Your task to perform on an android device: Open calendar and show me the fourth week of next month Image 0: 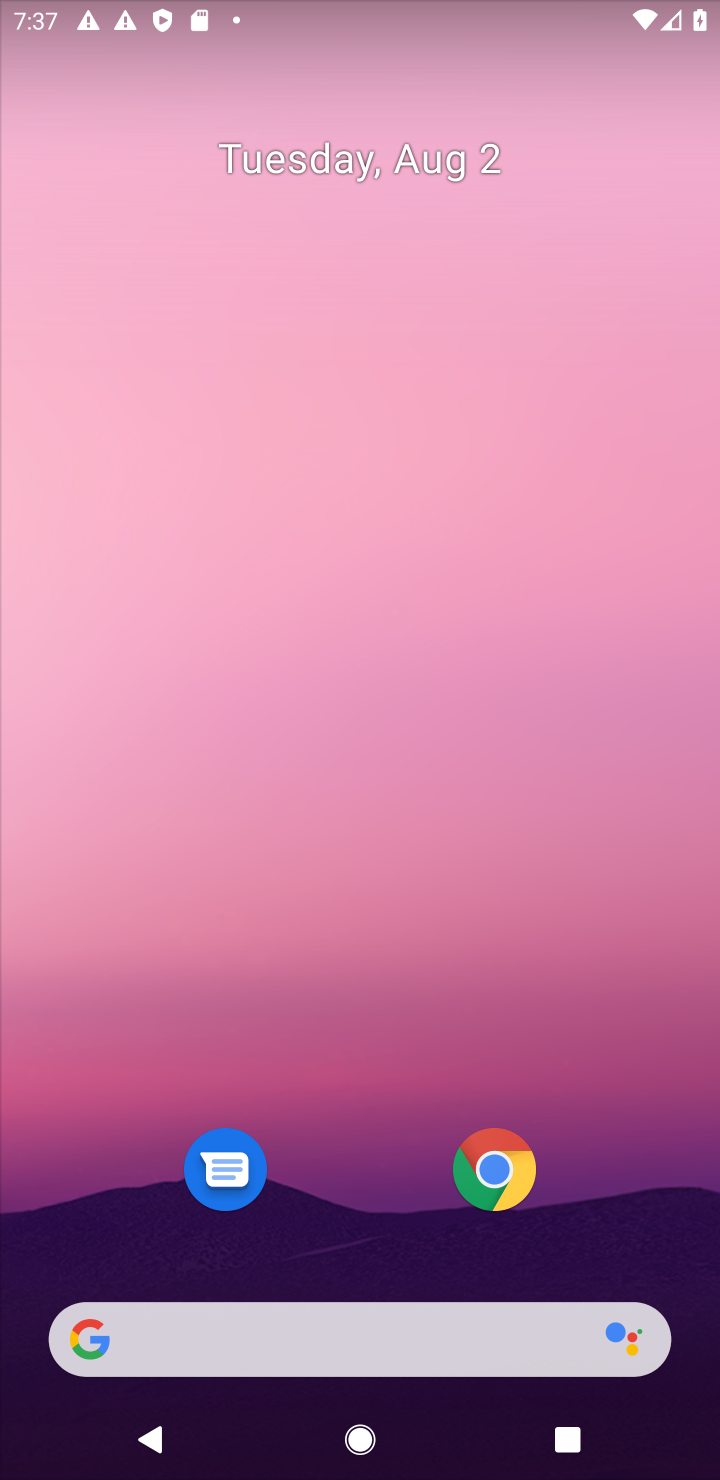
Step 0: drag from (441, 1008) to (472, 46)
Your task to perform on an android device: Open calendar and show me the fourth week of next month Image 1: 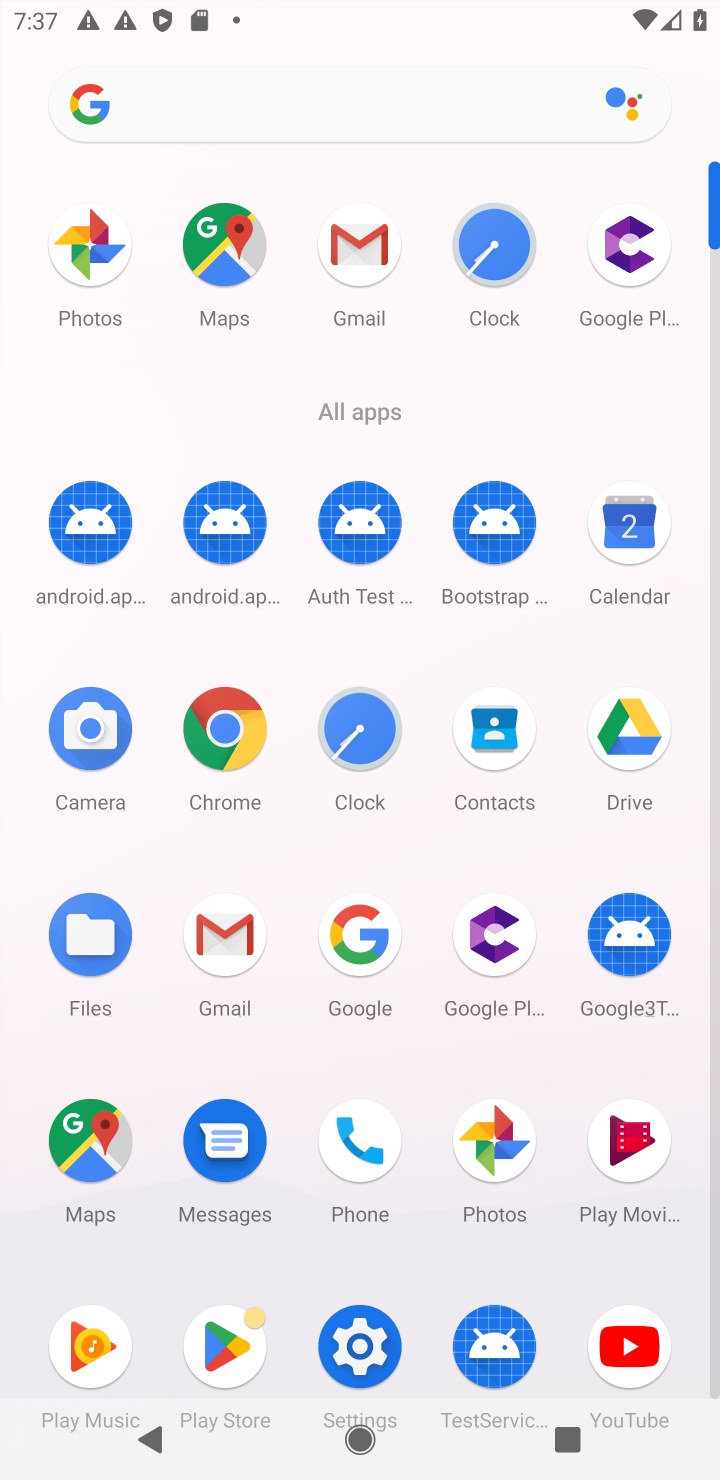
Step 1: click (642, 537)
Your task to perform on an android device: Open calendar and show me the fourth week of next month Image 2: 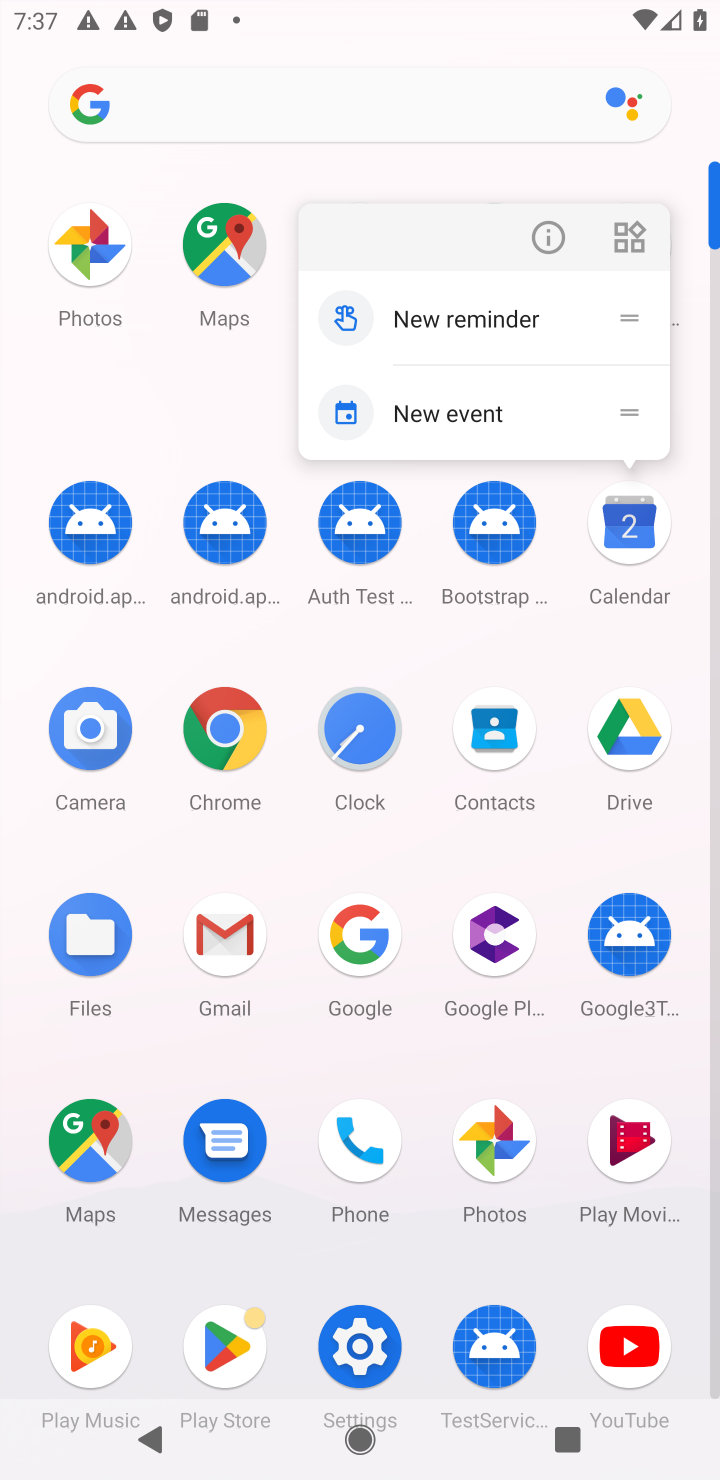
Step 2: click (639, 537)
Your task to perform on an android device: Open calendar and show me the fourth week of next month Image 3: 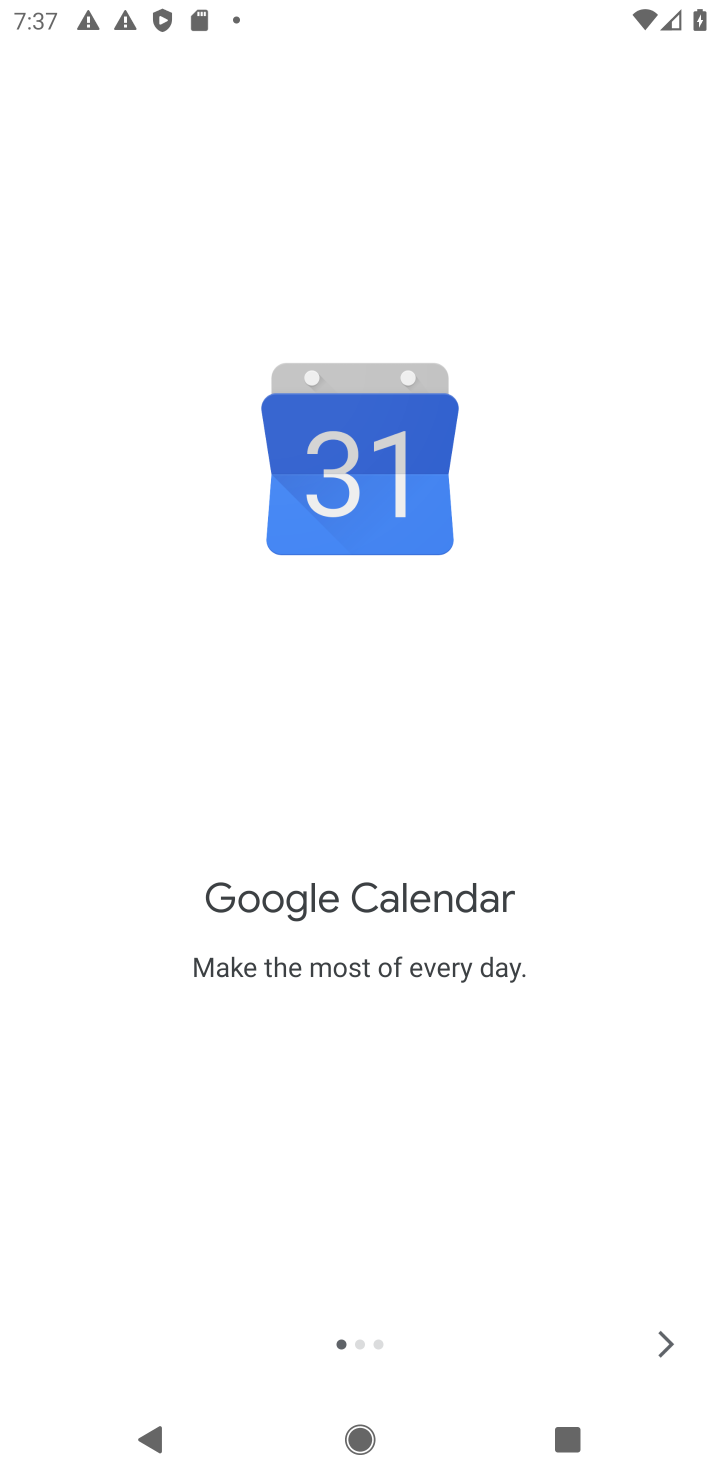
Step 3: click (664, 1334)
Your task to perform on an android device: Open calendar and show me the fourth week of next month Image 4: 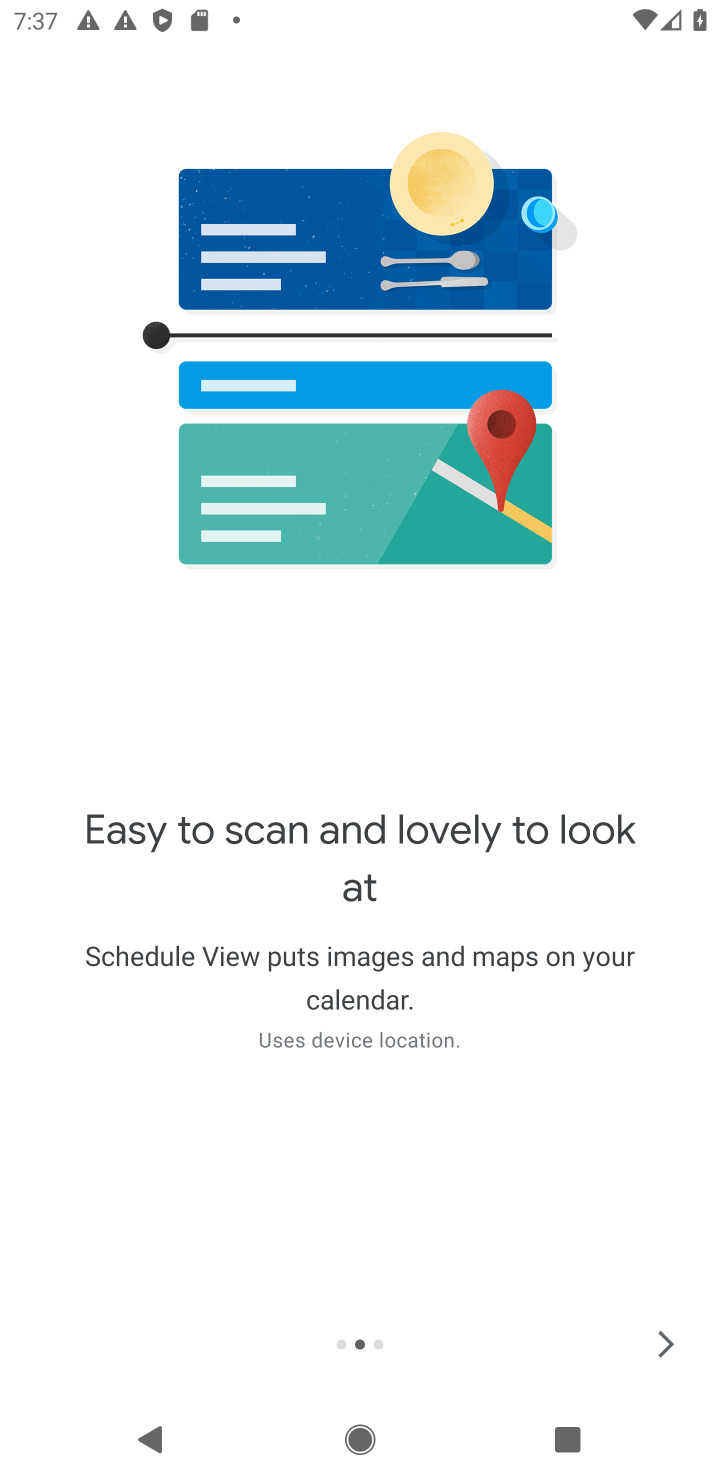
Step 4: click (664, 1334)
Your task to perform on an android device: Open calendar and show me the fourth week of next month Image 5: 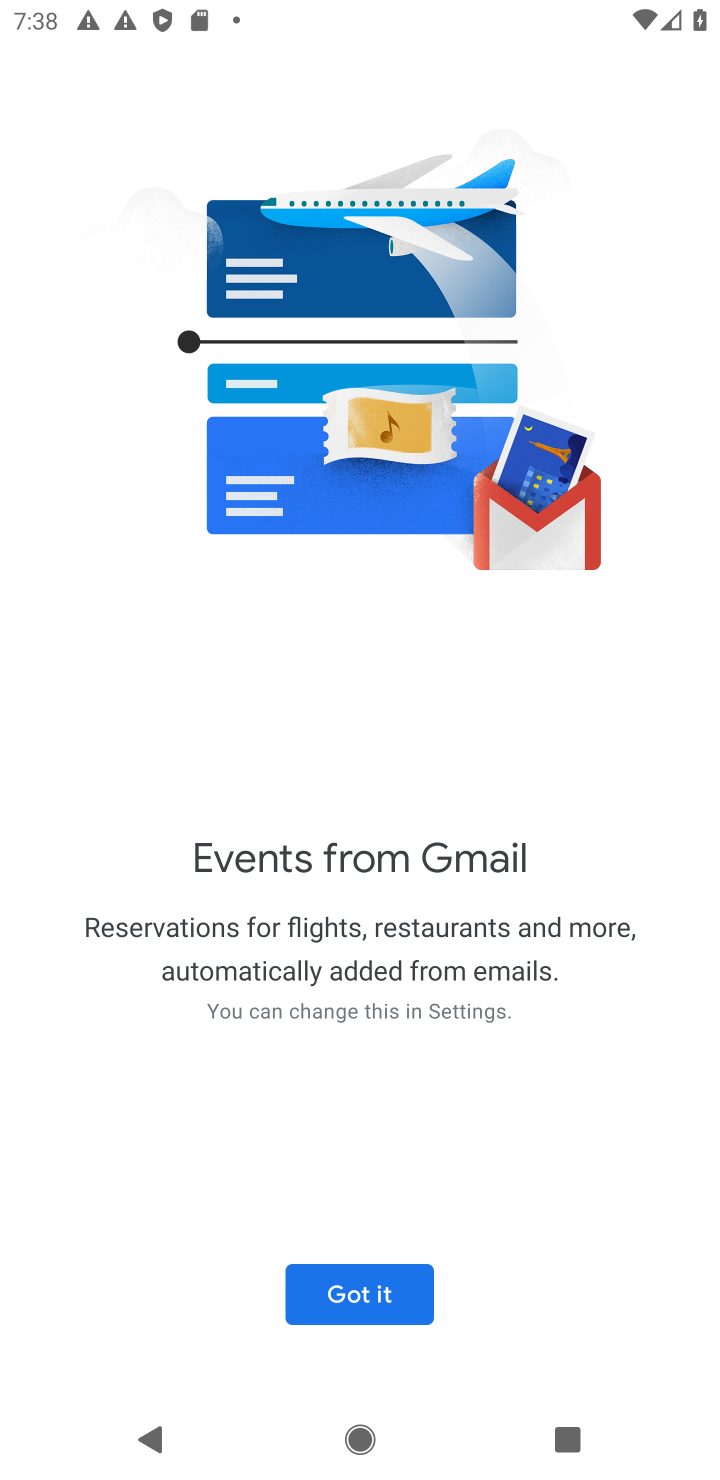
Step 5: click (415, 1312)
Your task to perform on an android device: Open calendar and show me the fourth week of next month Image 6: 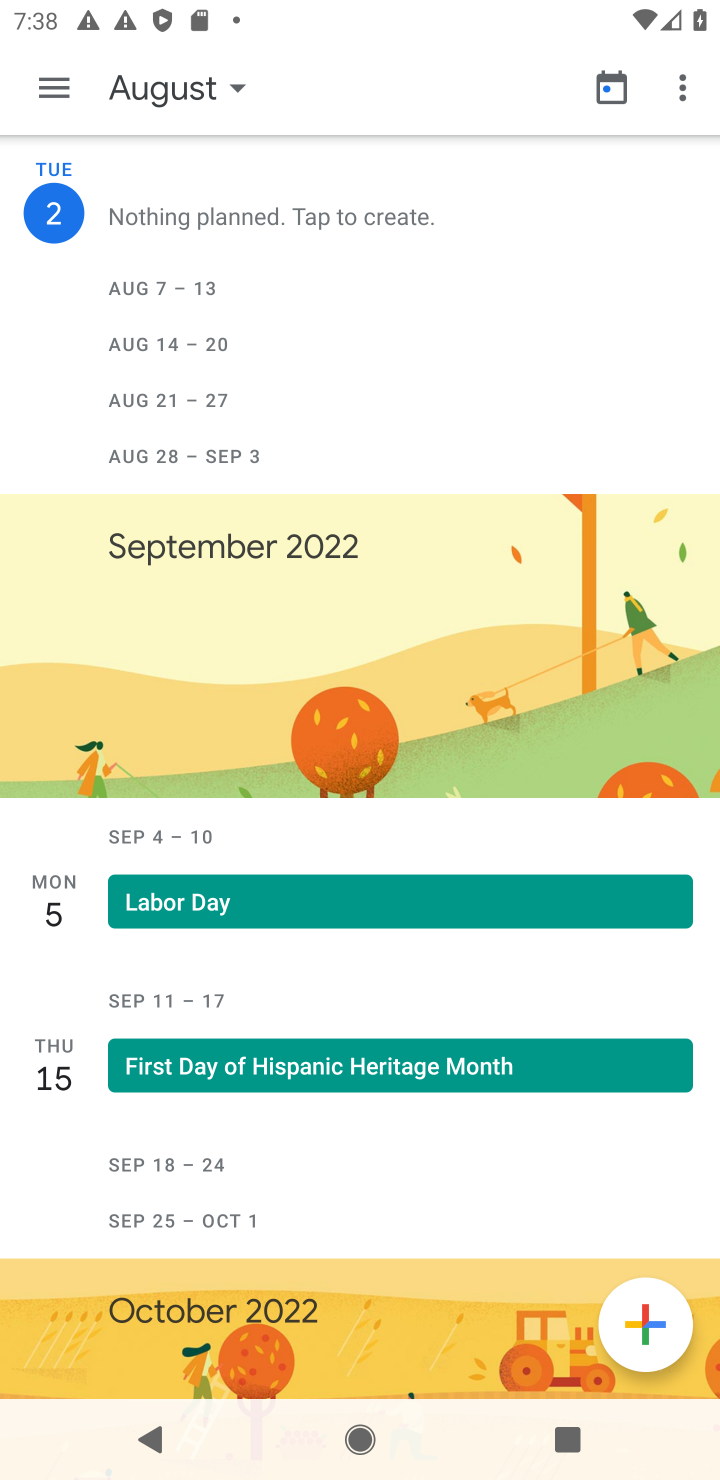
Step 6: click (63, 87)
Your task to perform on an android device: Open calendar and show me the fourth week of next month Image 7: 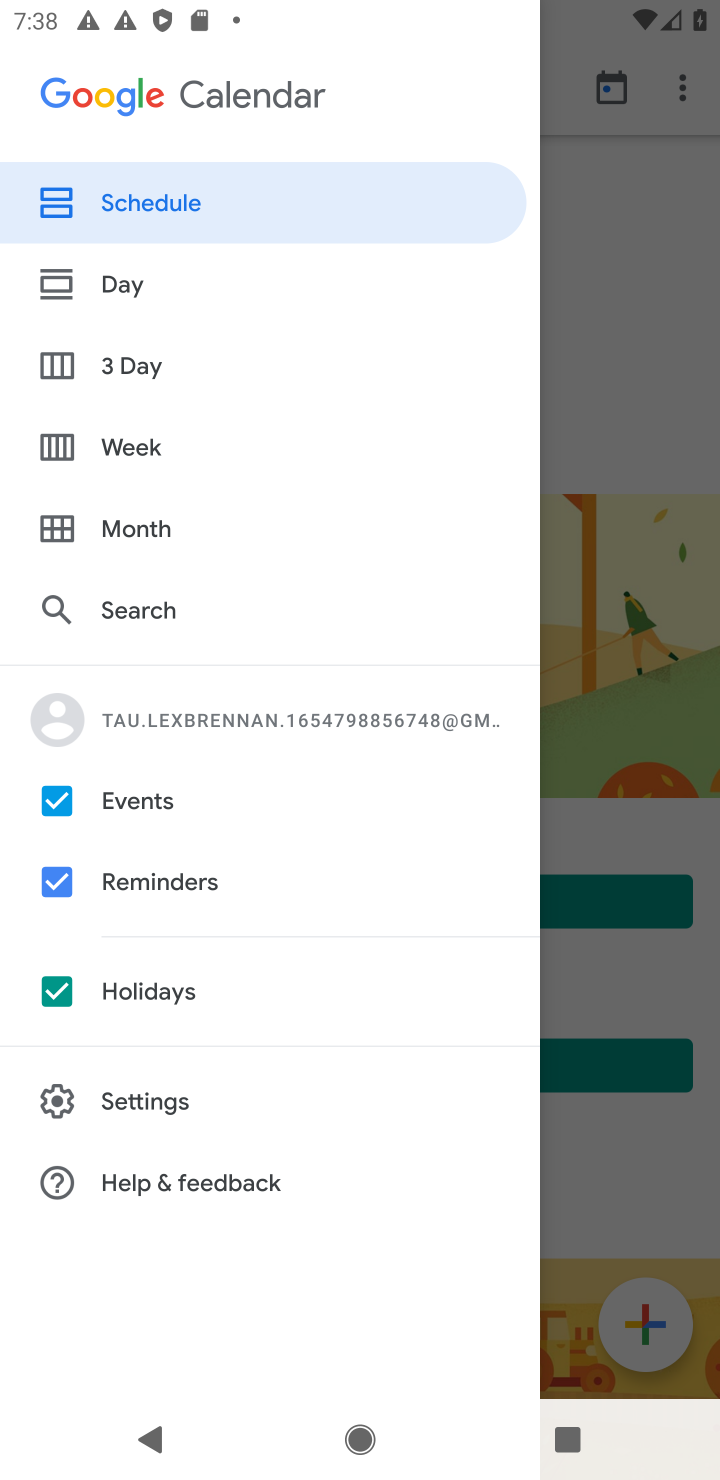
Step 7: click (72, 535)
Your task to perform on an android device: Open calendar and show me the fourth week of next month Image 8: 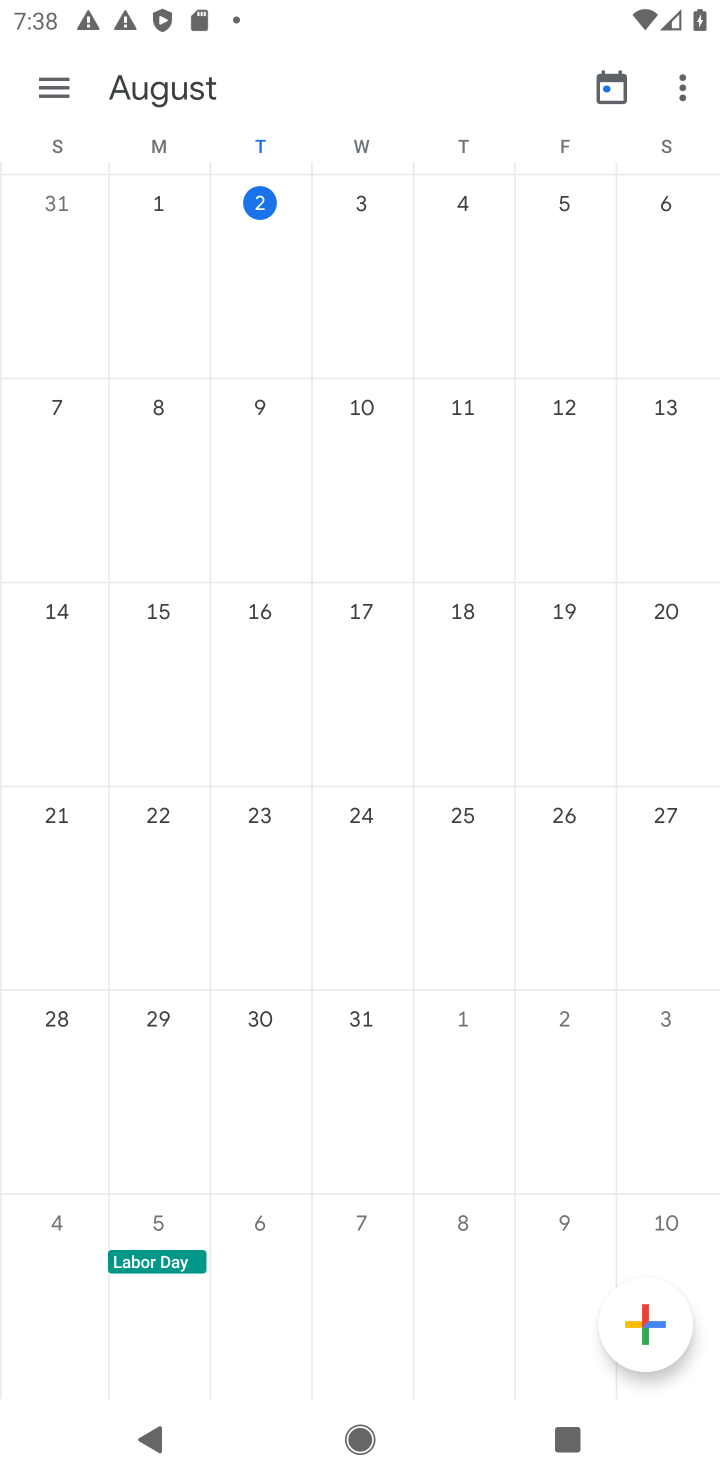
Step 8: drag from (666, 518) to (13, 471)
Your task to perform on an android device: Open calendar and show me the fourth week of next month Image 9: 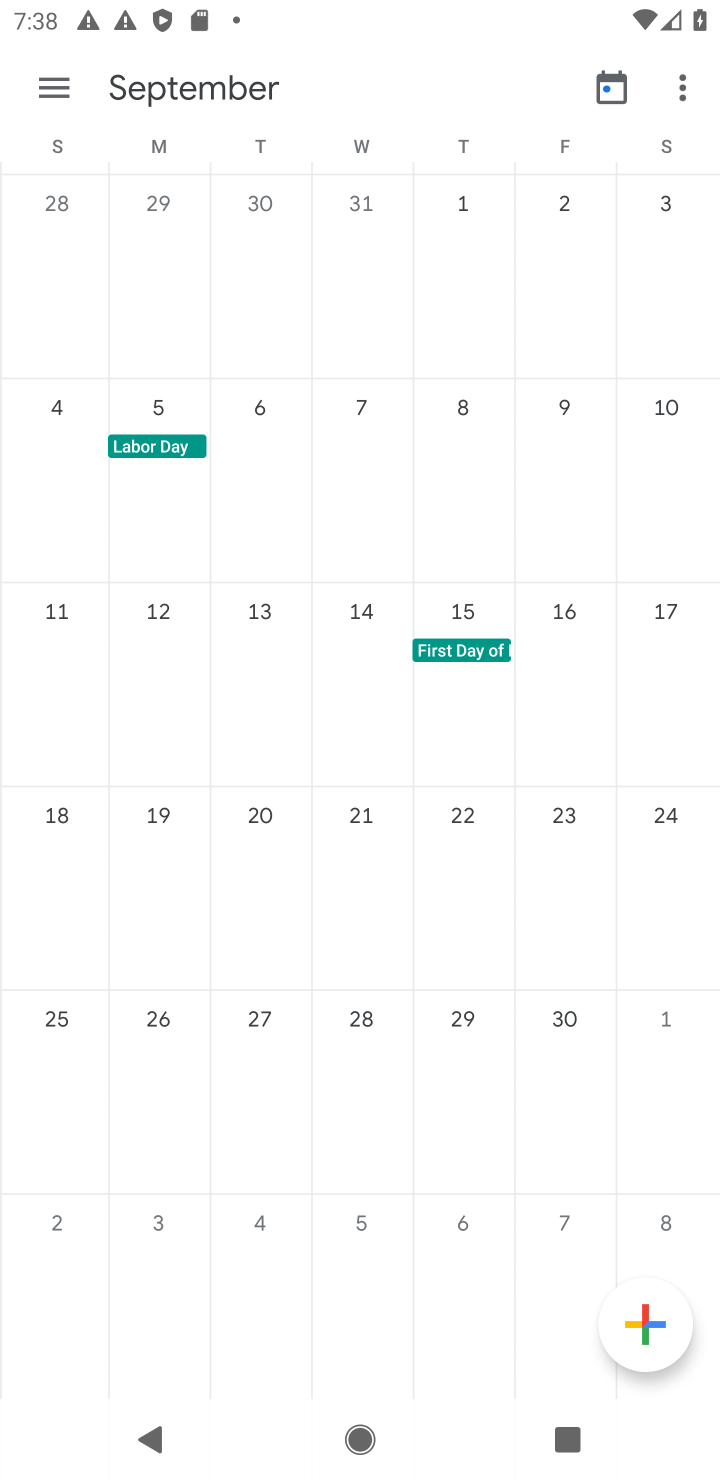
Step 9: click (61, 1013)
Your task to perform on an android device: Open calendar and show me the fourth week of next month Image 10: 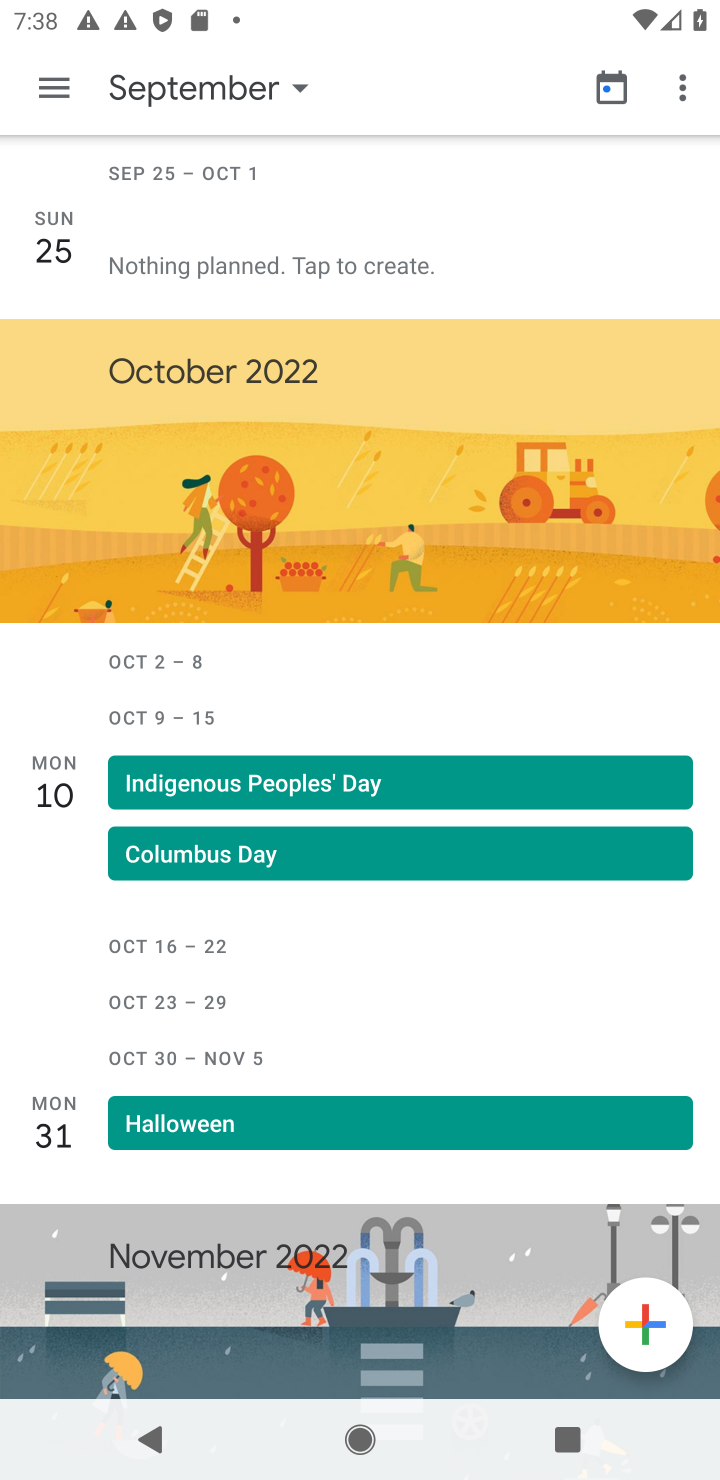
Step 10: click (46, 90)
Your task to perform on an android device: Open calendar and show me the fourth week of next month Image 11: 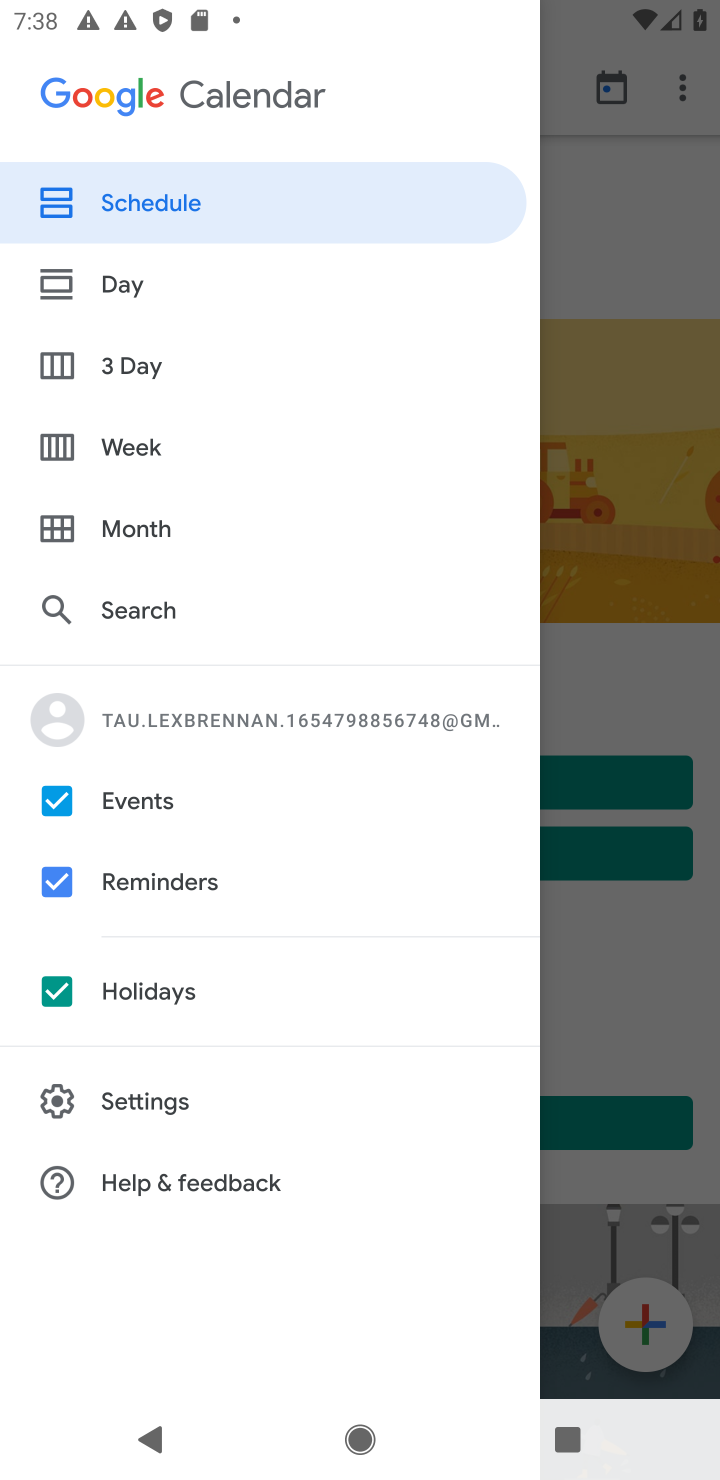
Step 11: click (46, 446)
Your task to perform on an android device: Open calendar and show me the fourth week of next month Image 12: 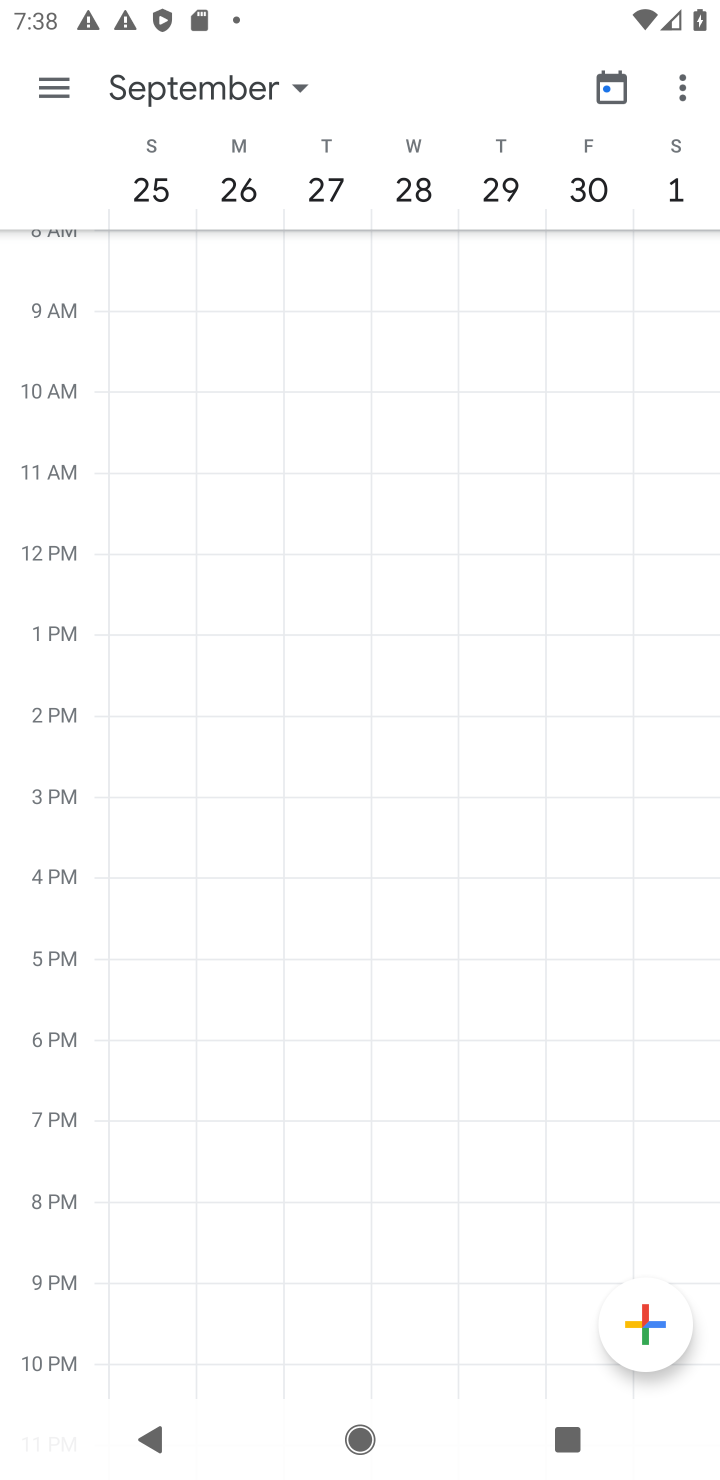
Step 12: task complete